Your task to perform on an android device: Show me recent news Image 0: 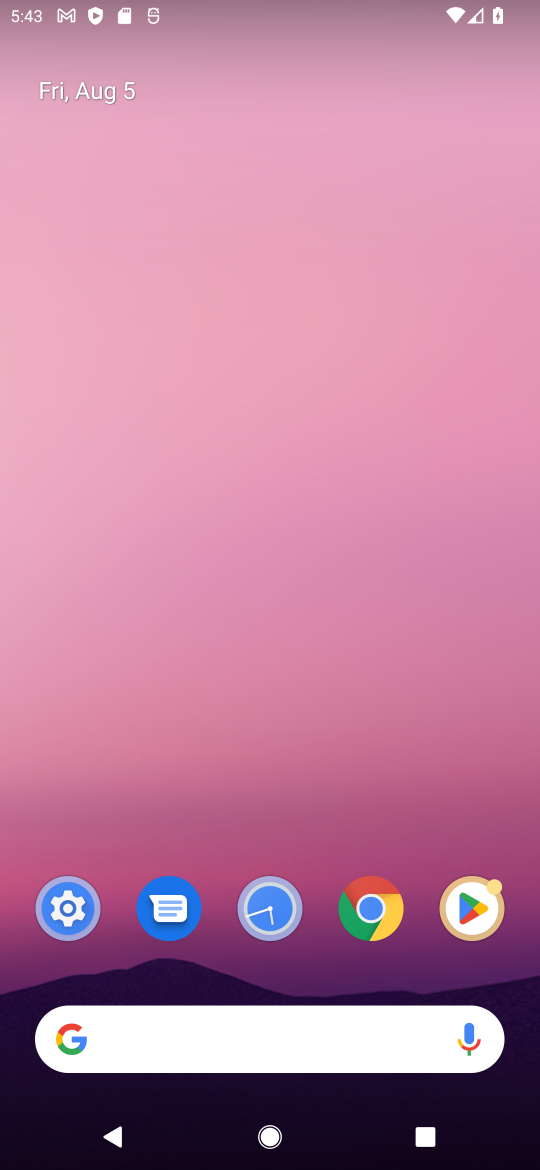
Step 0: drag from (200, 937) to (318, 4)
Your task to perform on an android device: Show me recent news Image 1: 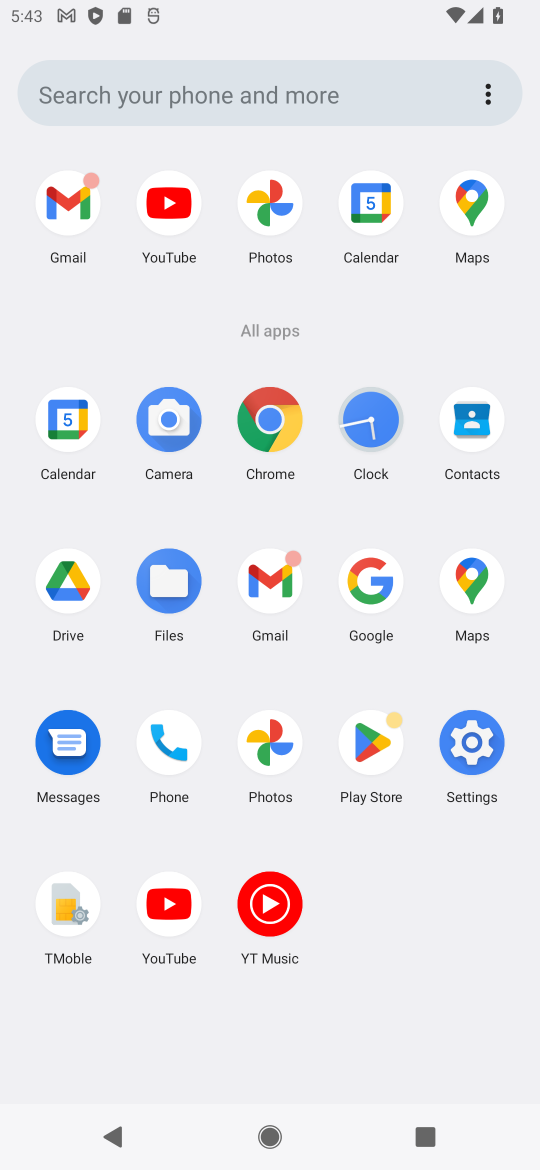
Step 1: click (370, 599)
Your task to perform on an android device: Show me recent news Image 2: 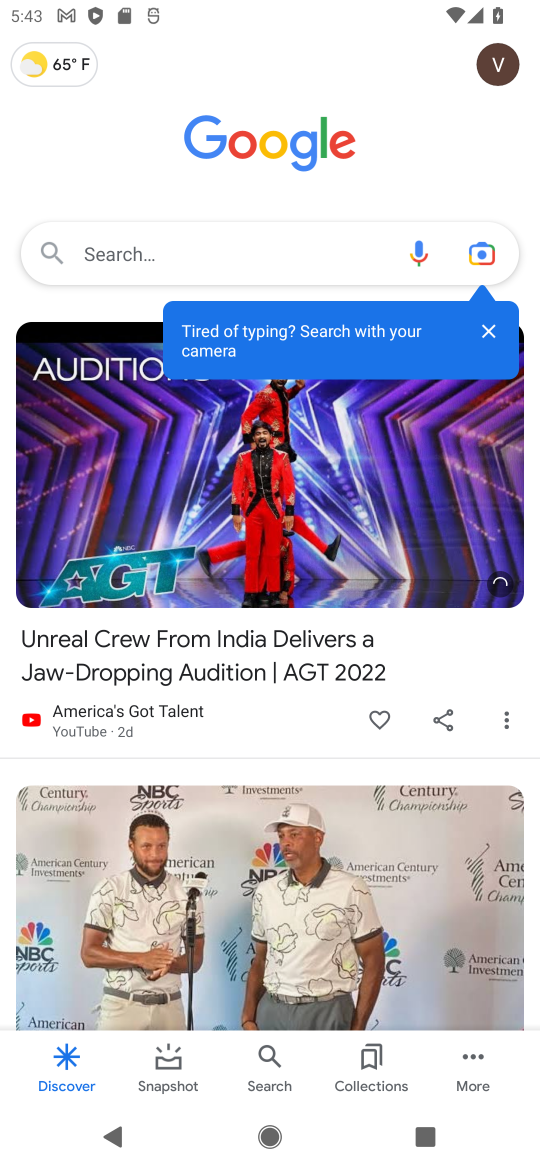
Step 2: click (180, 272)
Your task to perform on an android device: Show me recent news Image 3: 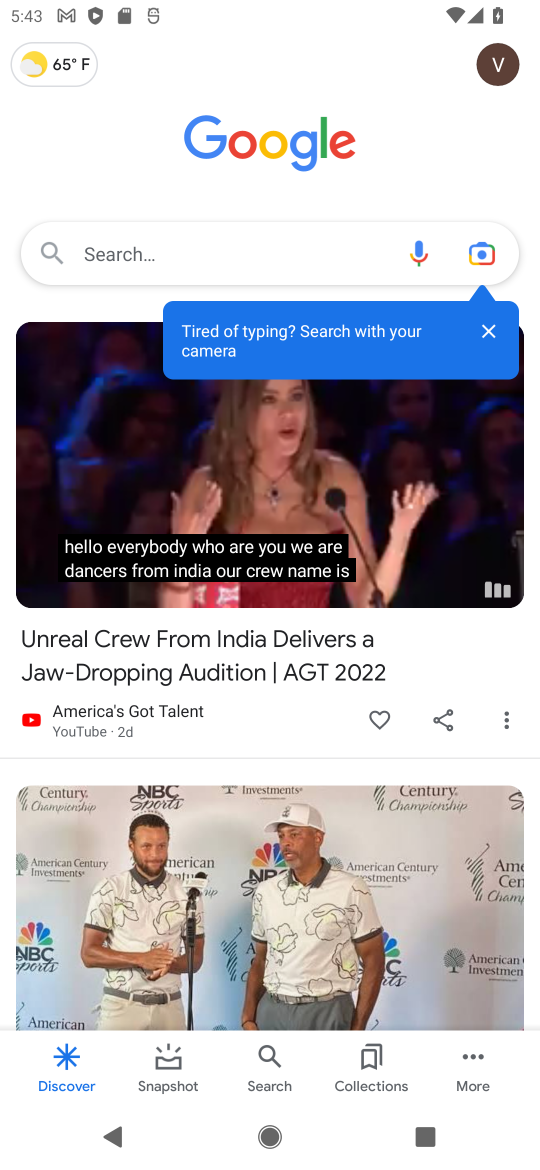
Step 3: click (205, 249)
Your task to perform on an android device: Show me recent news Image 4: 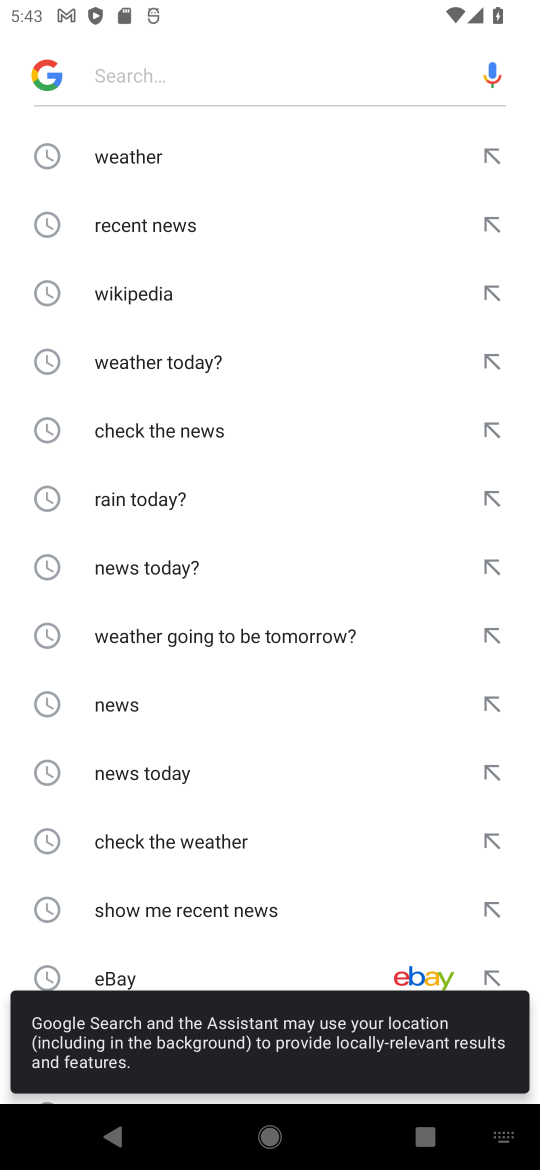
Step 4: click (175, 227)
Your task to perform on an android device: Show me recent news Image 5: 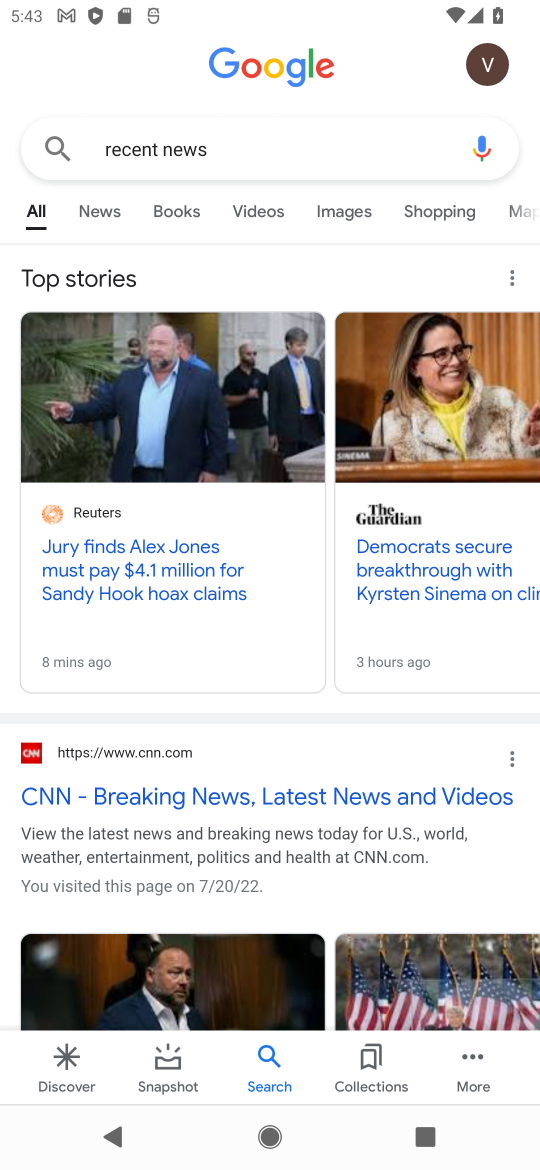
Step 5: task complete